Your task to perform on an android device: Open the stopwatch Image 0: 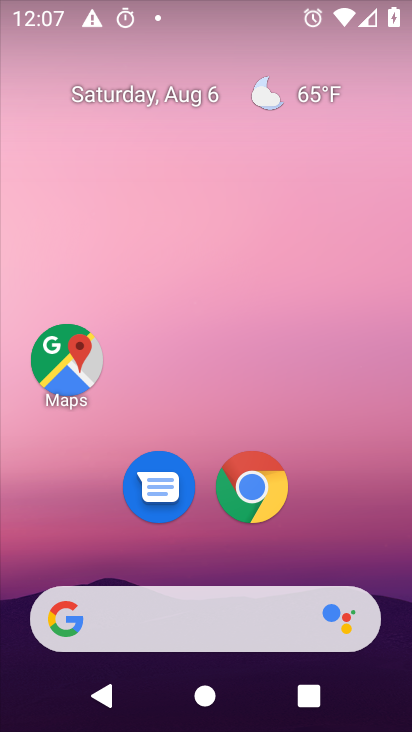
Step 0: drag from (173, 555) to (253, 35)
Your task to perform on an android device: Open the stopwatch Image 1: 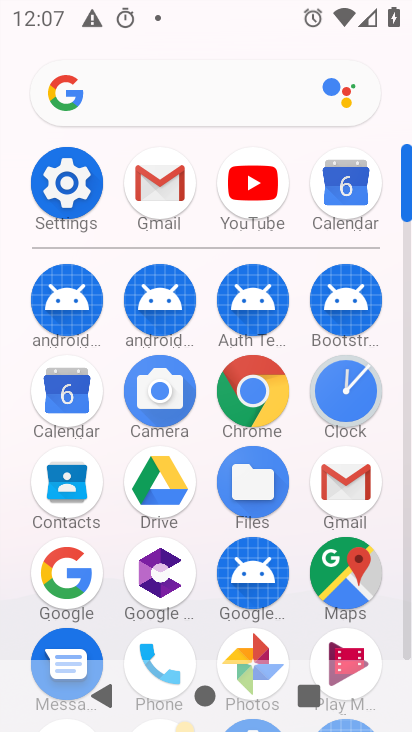
Step 1: click (348, 403)
Your task to perform on an android device: Open the stopwatch Image 2: 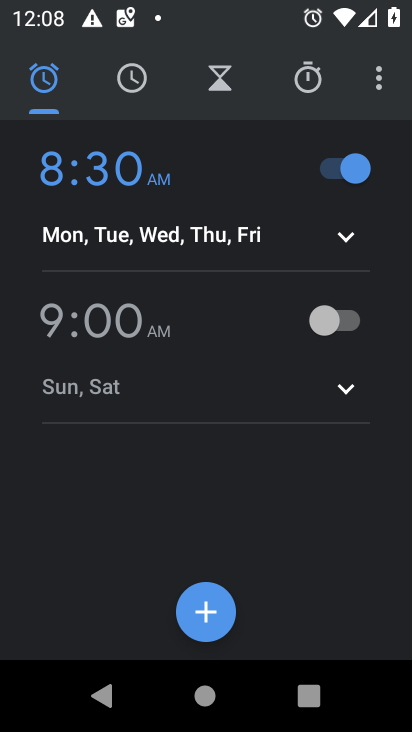
Step 2: click (303, 90)
Your task to perform on an android device: Open the stopwatch Image 3: 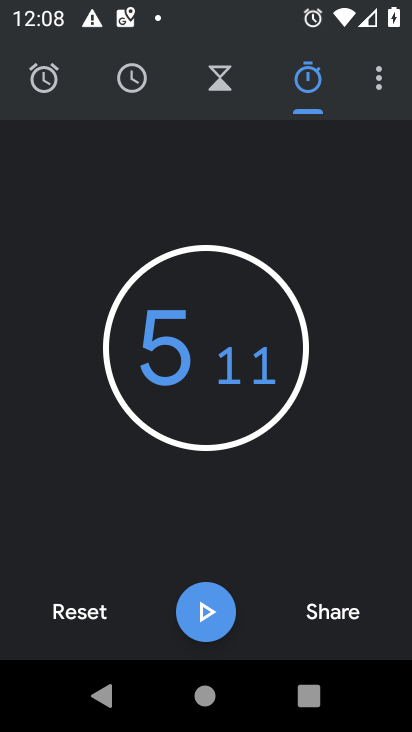
Step 3: click (52, 80)
Your task to perform on an android device: Open the stopwatch Image 4: 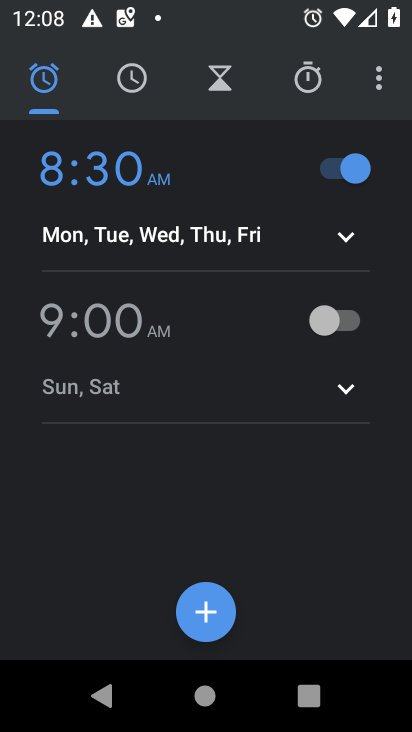
Step 4: click (298, 86)
Your task to perform on an android device: Open the stopwatch Image 5: 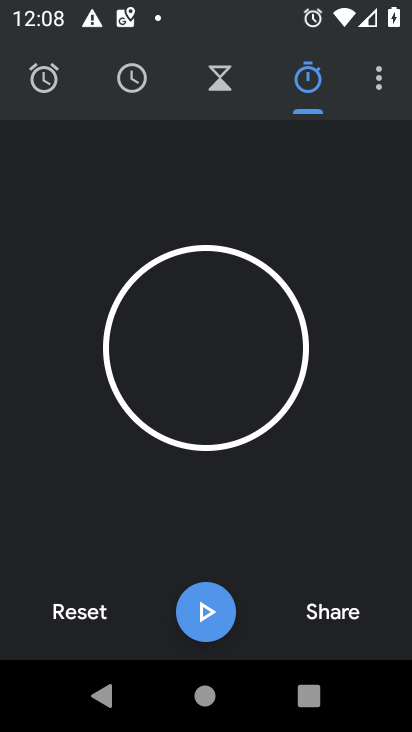
Step 5: task complete